Your task to perform on an android device: Open settings on Google Maps Image 0: 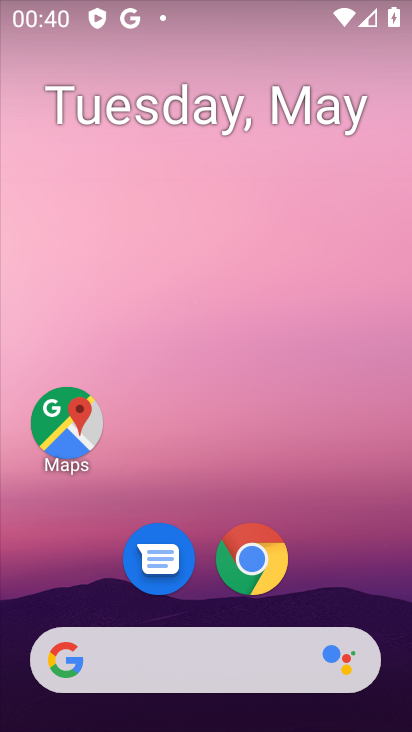
Step 0: click (264, 569)
Your task to perform on an android device: Open settings on Google Maps Image 1: 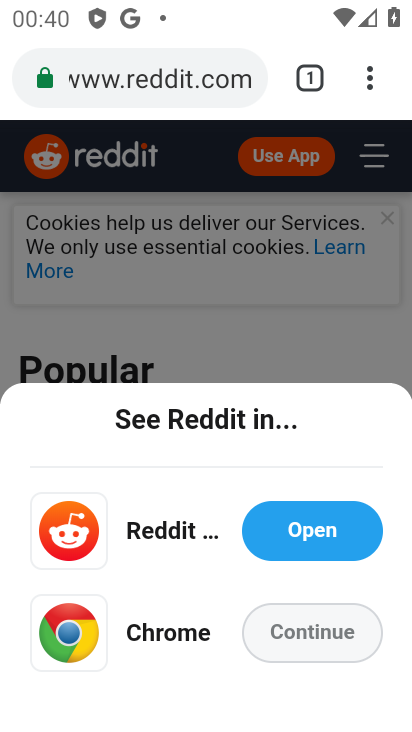
Step 1: click (256, 293)
Your task to perform on an android device: Open settings on Google Maps Image 2: 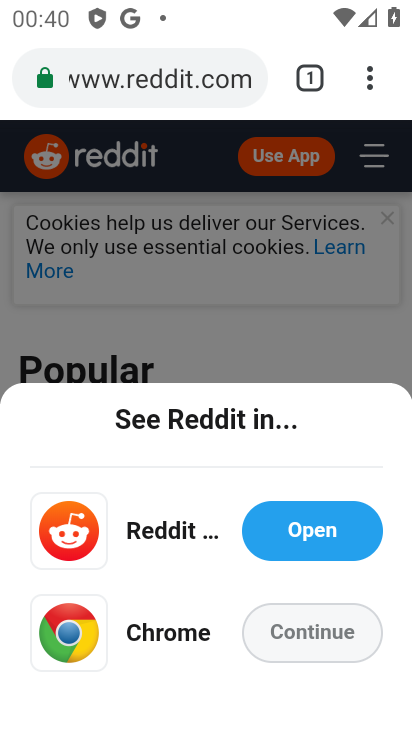
Step 2: click (312, 299)
Your task to perform on an android device: Open settings on Google Maps Image 3: 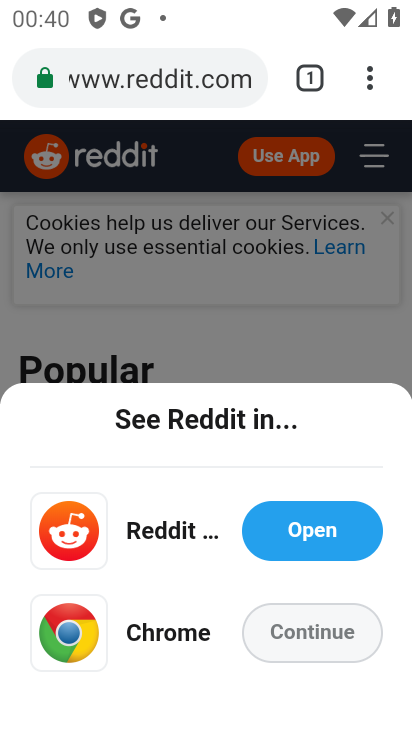
Step 3: click (267, 635)
Your task to perform on an android device: Open settings on Google Maps Image 4: 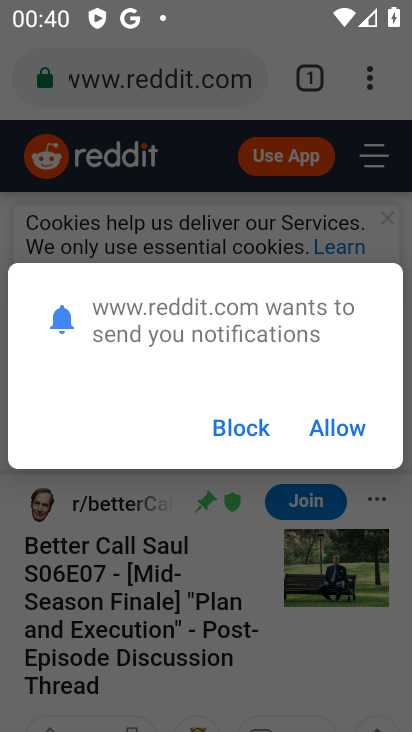
Step 4: task complete